Your task to perform on an android device: read, delete, or share a saved page in the chrome app Image 0: 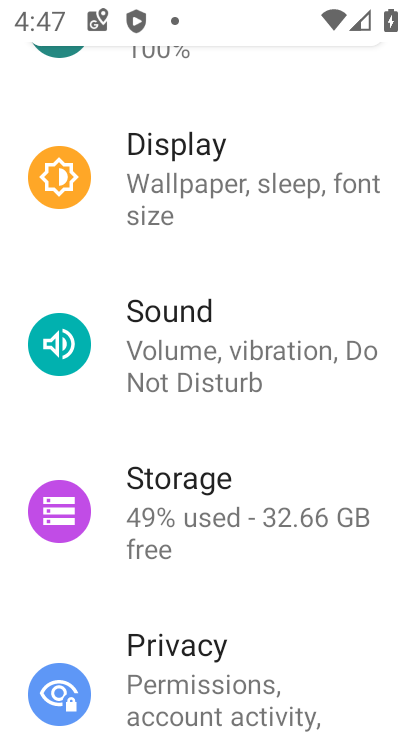
Step 0: press back button
Your task to perform on an android device: read, delete, or share a saved page in the chrome app Image 1: 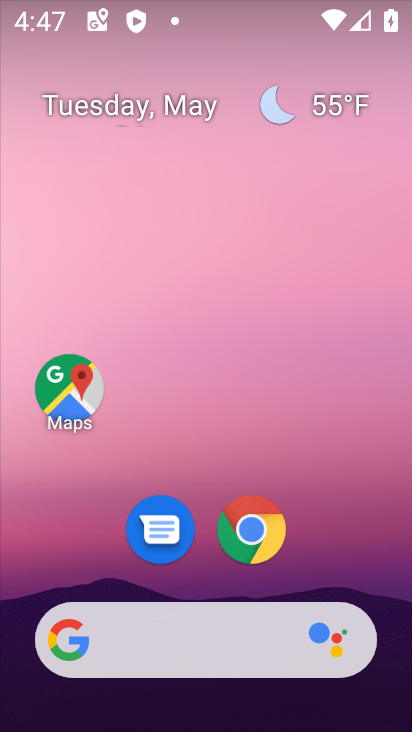
Step 1: drag from (294, 664) to (179, 148)
Your task to perform on an android device: read, delete, or share a saved page in the chrome app Image 2: 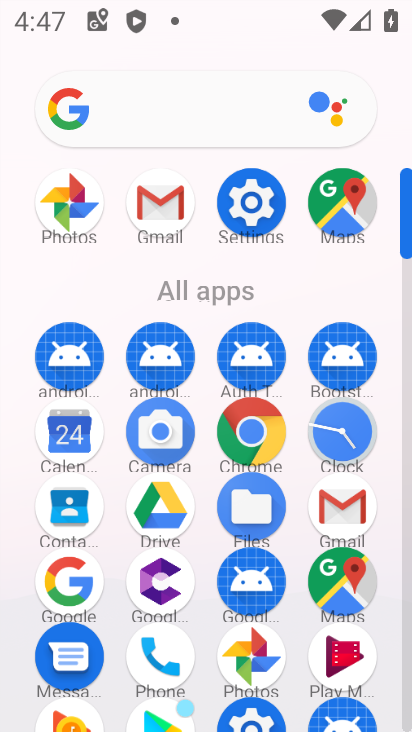
Step 2: click (247, 432)
Your task to perform on an android device: read, delete, or share a saved page in the chrome app Image 3: 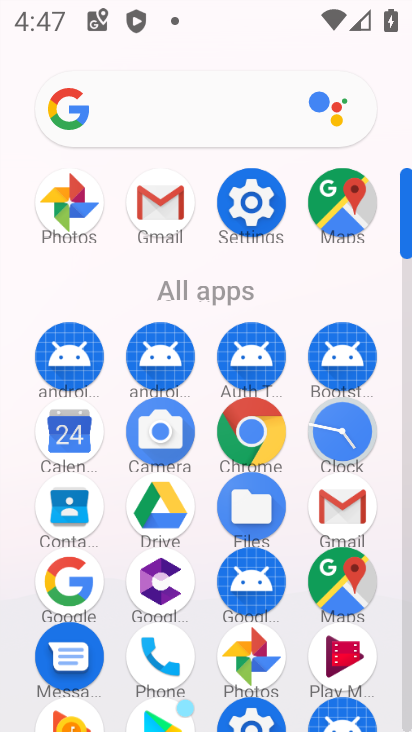
Step 3: click (247, 432)
Your task to perform on an android device: read, delete, or share a saved page in the chrome app Image 4: 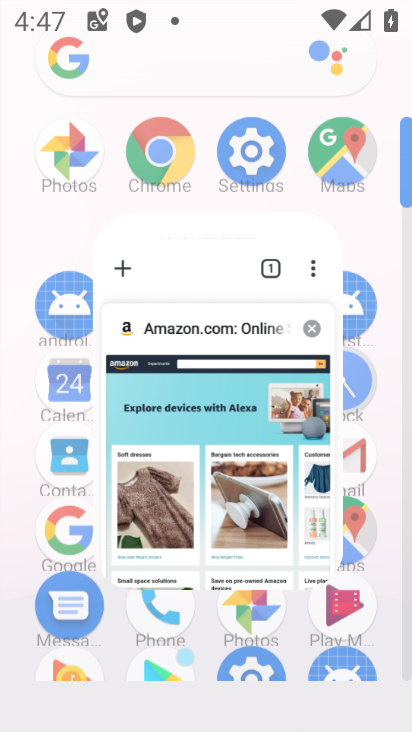
Step 4: click (248, 433)
Your task to perform on an android device: read, delete, or share a saved page in the chrome app Image 5: 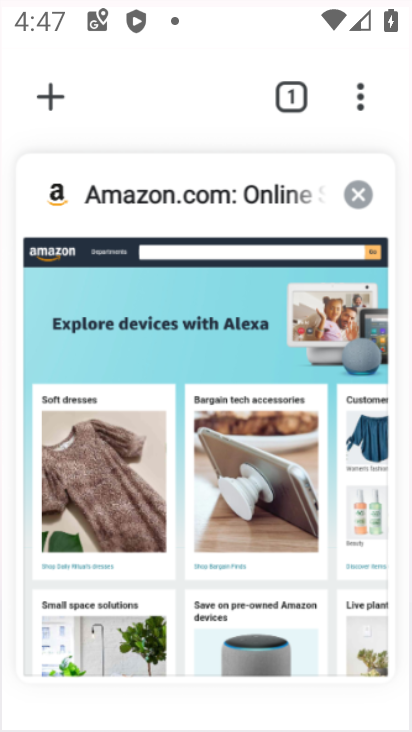
Step 5: click (248, 433)
Your task to perform on an android device: read, delete, or share a saved page in the chrome app Image 6: 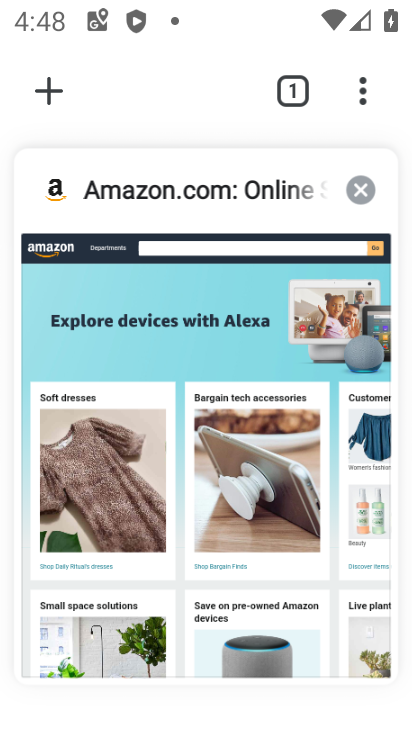
Step 6: drag from (361, 92) to (80, 353)
Your task to perform on an android device: read, delete, or share a saved page in the chrome app Image 7: 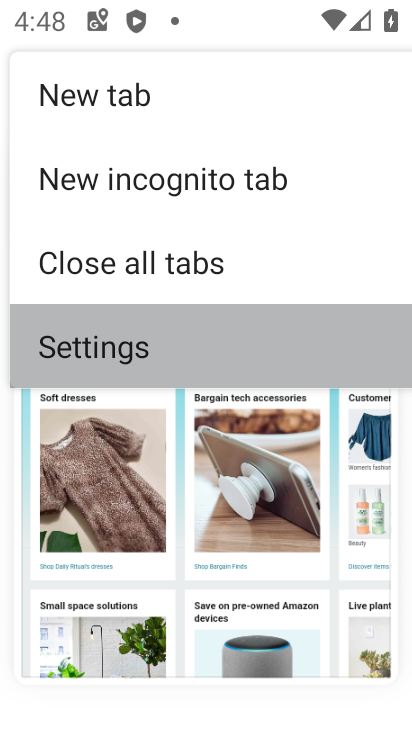
Step 7: click (80, 353)
Your task to perform on an android device: read, delete, or share a saved page in the chrome app Image 8: 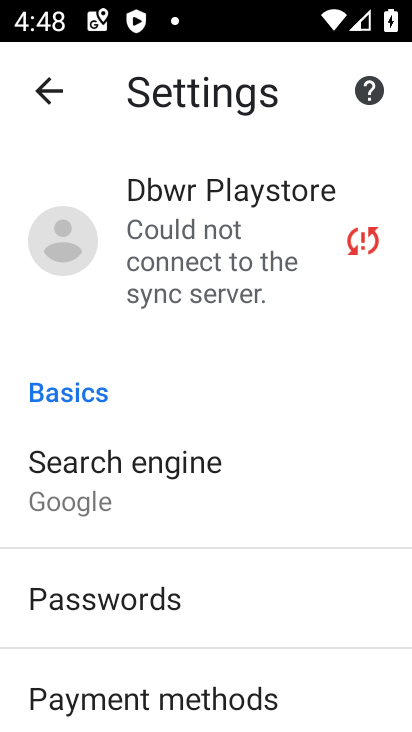
Step 8: drag from (180, 528) to (180, 296)
Your task to perform on an android device: read, delete, or share a saved page in the chrome app Image 9: 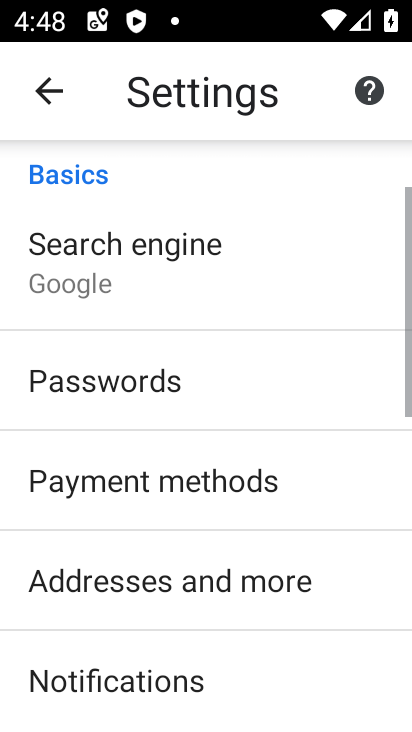
Step 9: drag from (189, 519) to (147, 173)
Your task to perform on an android device: read, delete, or share a saved page in the chrome app Image 10: 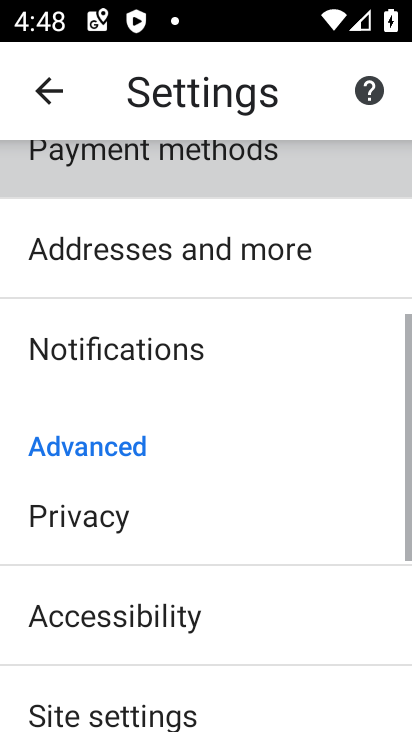
Step 10: drag from (179, 477) to (152, 181)
Your task to perform on an android device: read, delete, or share a saved page in the chrome app Image 11: 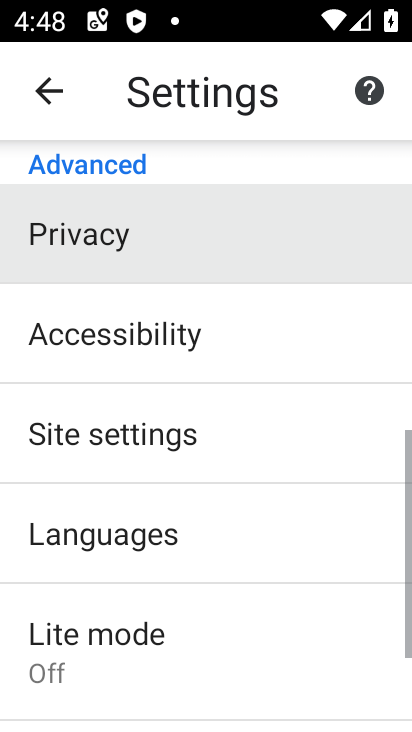
Step 11: drag from (182, 483) to (171, 233)
Your task to perform on an android device: read, delete, or share a saved page in the chrome app Image 12: 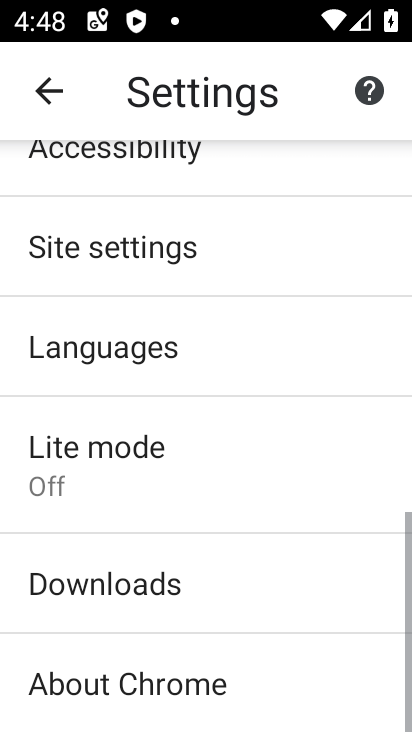
Step 12: drag from (191, 466) to (160, 188)
Your task to perform on an android device: read, delete, or share a saved page in the chrome app Image 13: 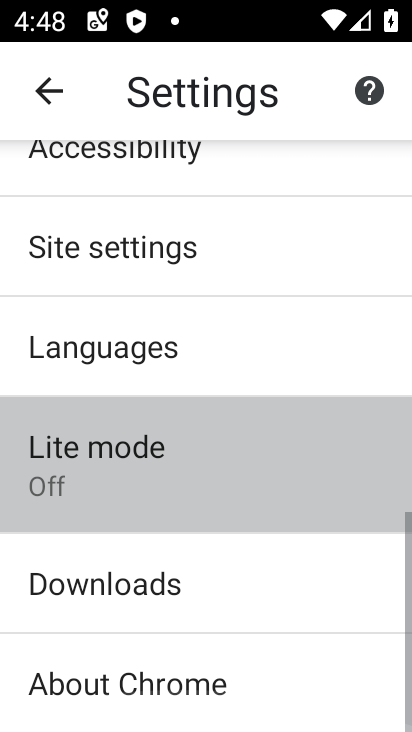
Step 13: drag from (175, 472) to (174, 196)
Your task to perform on an android device: read, delete, or share a saved page in the chrome app Image 14: 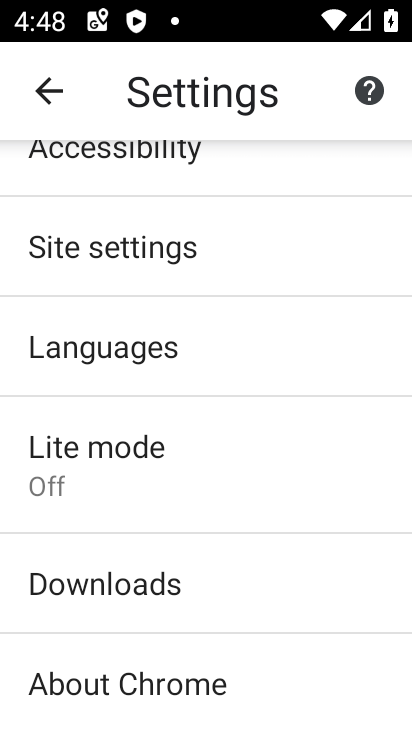
Step 14: click (96, 248)
Your task to perform on an android device: read, delete, or share a saved page in the chrome app Image 15: 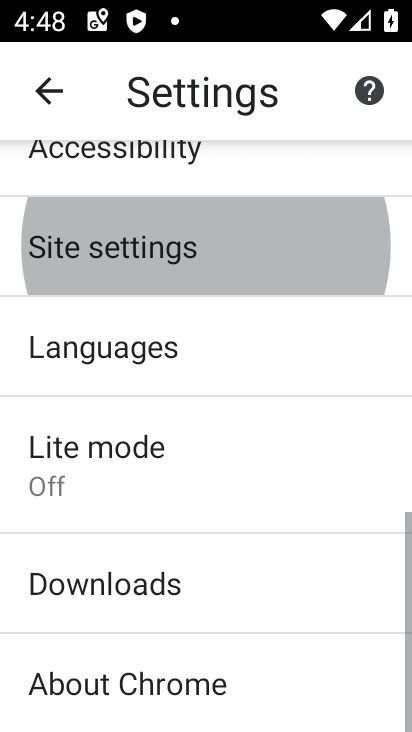
Step 15: click (96, 248)
Your task to perform on an android device: read, delete, or share a saved page in the chrome app Image 16: 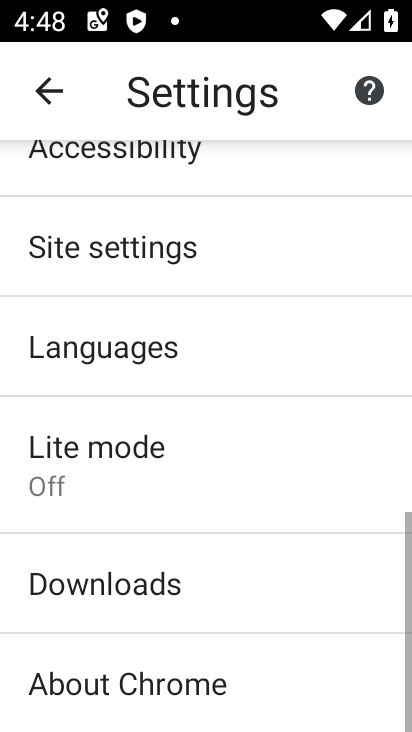
Step 16: click (96, 248)
Your task to perform on an android device: read, delete, or share a saved page in the chrome app Image 17: 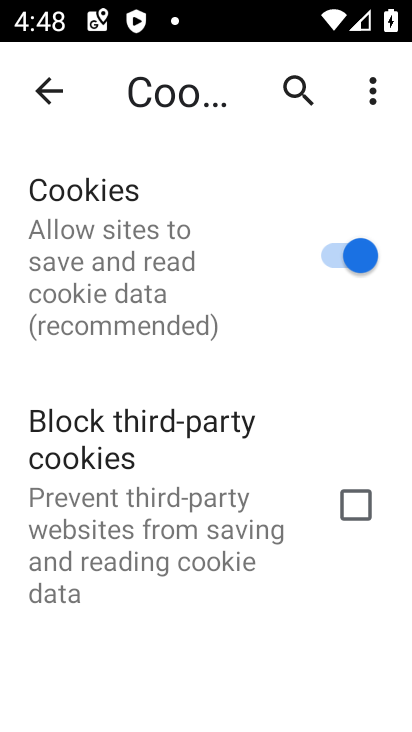
Step 17: click (46, 95)
Your task to perform on an android device: read, delete, or share a saved page in the chrome app Image 18: 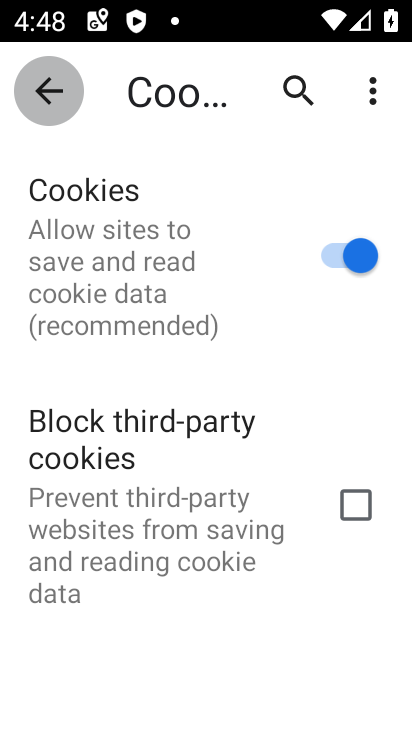
Step 18: click (49, 92)
Your task to perform on an android device: read, delete, or share a saved page in the chrome app Image 19: 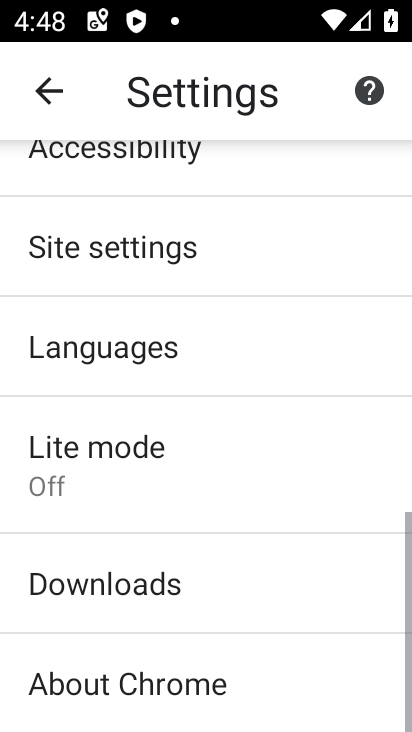
Step 19: drag from (129, 240) to (188, 581)
Your task to perform on an android device: read, delete, or share a saved page in the chrome app Image 20: 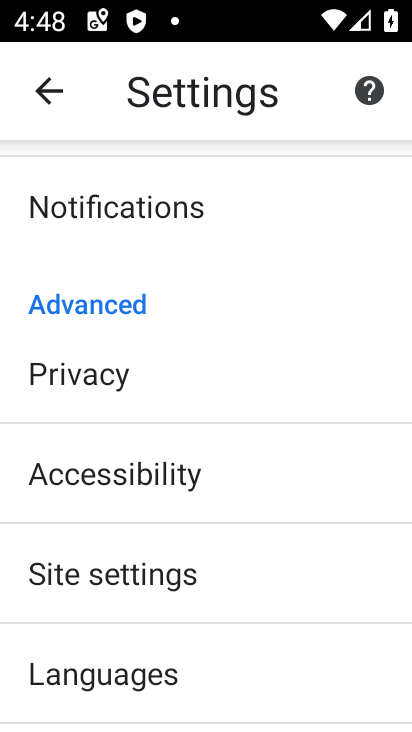
Step 20: drag from (76, 272) to (155, 671)
Your task to perform on an android device: read, delete, or share a saved page in the chrome app Image 21: 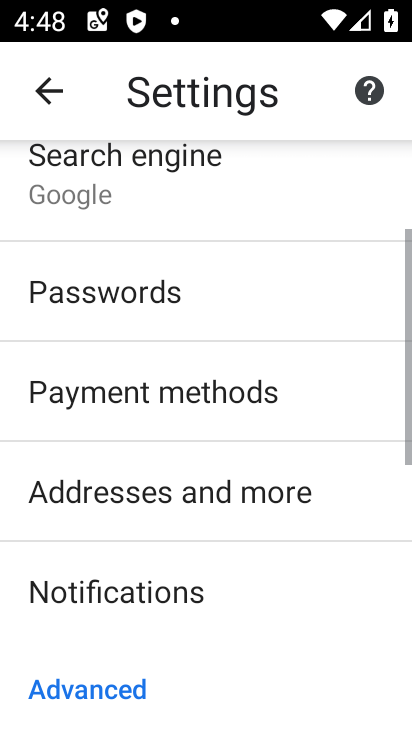
Step 21: drag from (77, 256) to (134, 629)
Your task to perform on an android device: read, delete, or share a saved page in the chrome app Image 22: 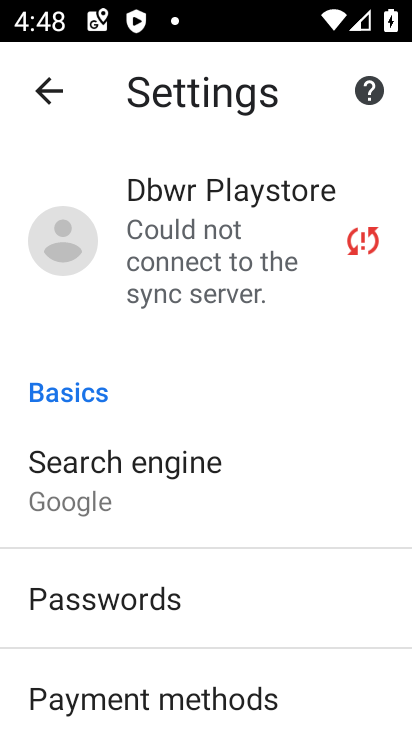
Step 22: drag from (118, 622) to (91, 174)
Your task to perform on an android device: read, delete, or share a saved page in the chrome app Image 23: 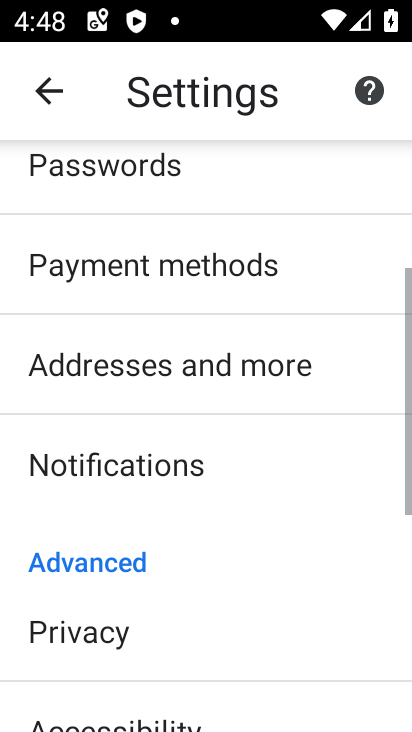
Step 23: drag from (161, 473) to (161, 140)
Your task to perform on an android device: read, delete, or share a saved page in the chrome app Image 24: 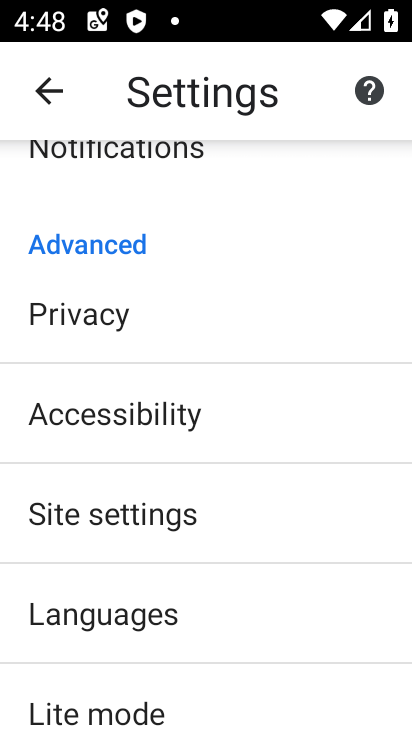
Step 24: drag from (93, 212) to (149, 570)
Your task to perform on an android device: read, delete, or share a saved page in the chrome app Image 25: 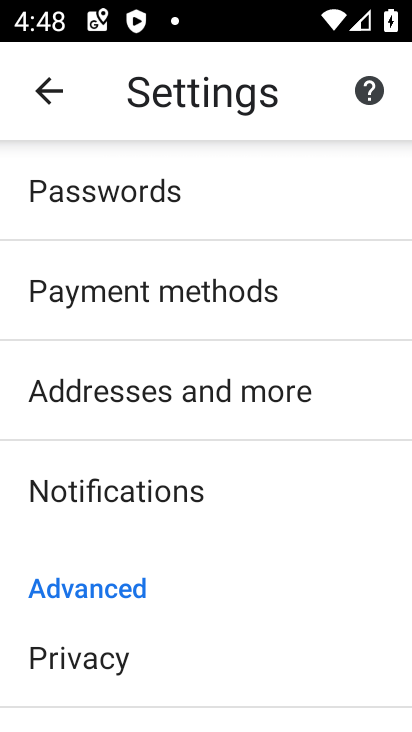
Step 25: drag from (130, 597) to (130, 279)
Your task to perform on an android device: read, delete, or share a saved page in the chrome app Image 26: 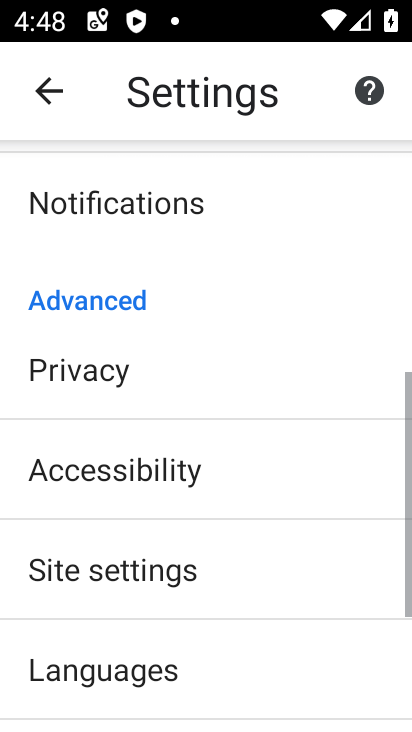
Step 26: drag from (180, 500) to (155, 244)
Your task to perform on an android device: read, delete, or share a saved page in the chrome app Image 27: 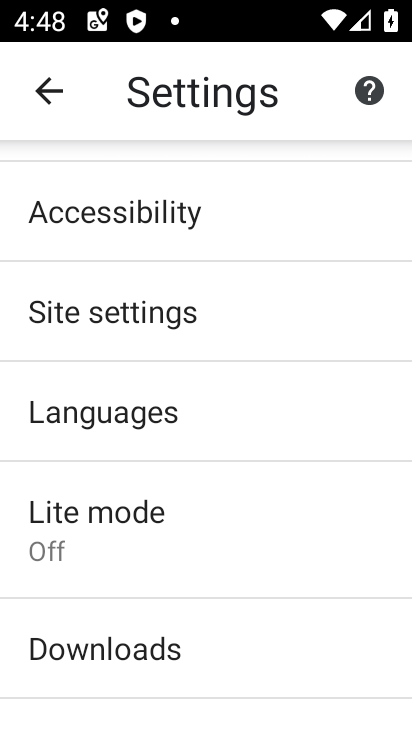
Step 27: click (100, 647)
Your task to perform on an android device: read, delete, or share a saved page in the chrome app Image 28: 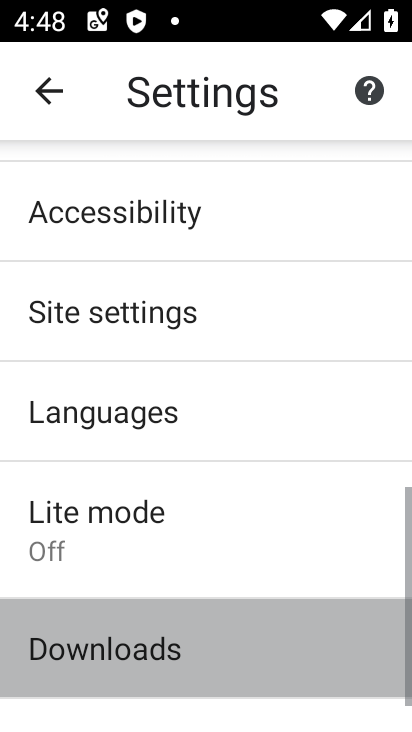
Step 28: click (100, 647)
Your task to perform on an android device: read, delete, or share a saved page in the chrome app Image 29: 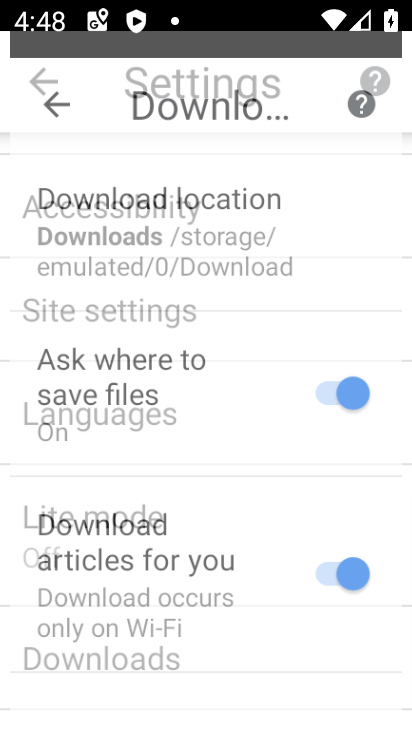
Step 29: click (100, 647)
Your task to perform on an android device: read, delete, or share a saved page in the chrome app Image 30: 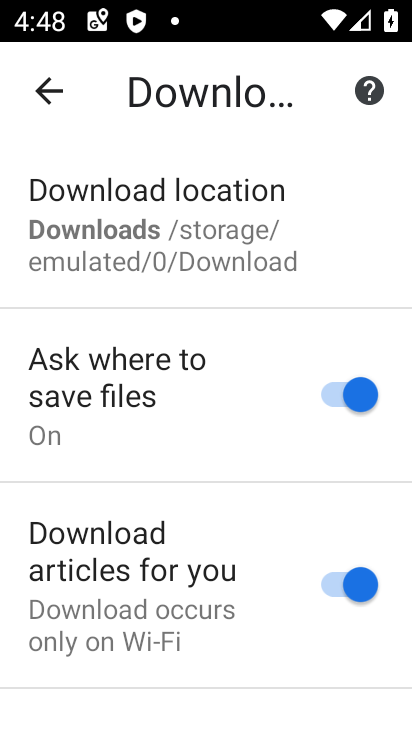
Step 30: click (100, 647)
Your task to perform on an android device: read, delete, or share a saved page in the chrome app Image 31: 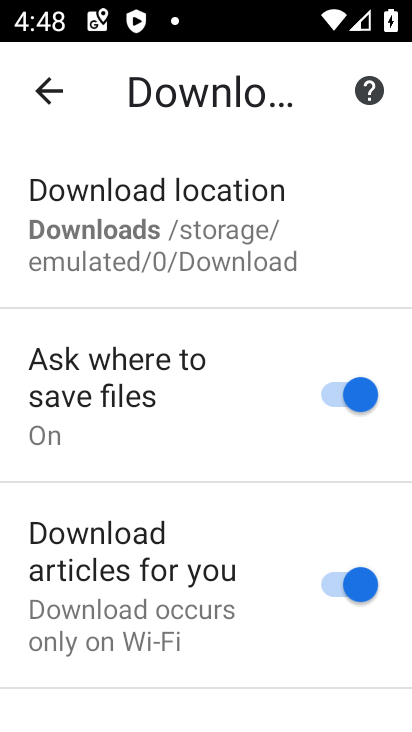
Step 31: click (39, 96)
Your task to perform on an android device: read, delete, or share a saved page in the chrome app Image 32: 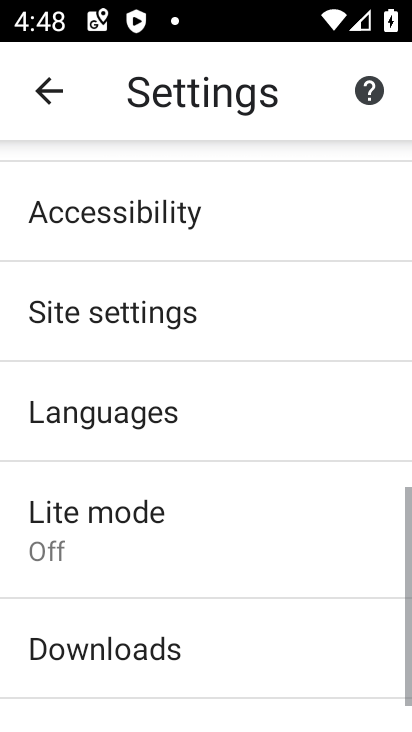
Step 32: click (39, 96)
Your task to perform on an android device: read, delete, or share a saved page in the chrome app Image 33: 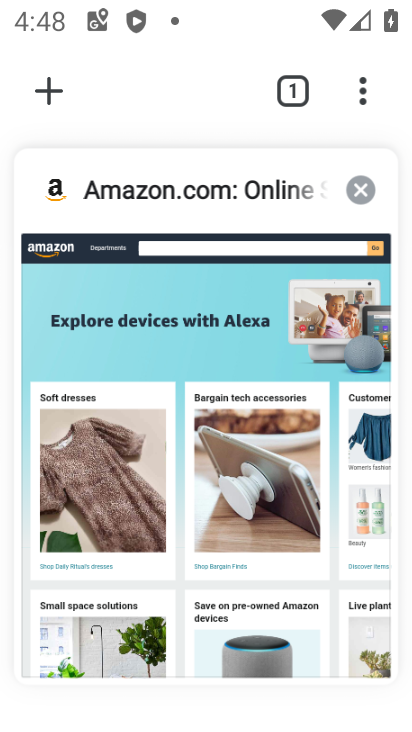
Step 33: click (366, 86)
Your task to perform on an android device: read, delete, or share a saved page in the chrome app Image 34: 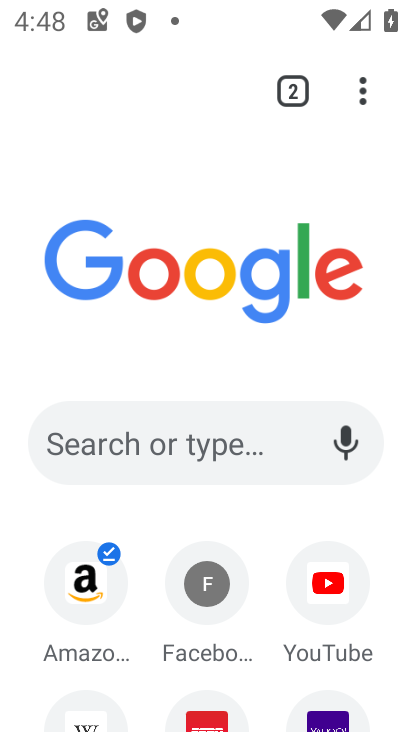
Step 34: task complete